Your task to perform on an android device: change the clock display to digital Image 0: 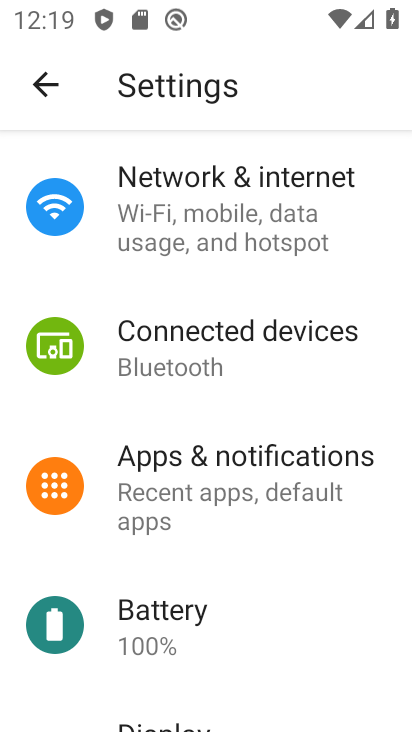
Step 0: press home button
Your task to perform on an android device: change the clock display to digital Image 1: 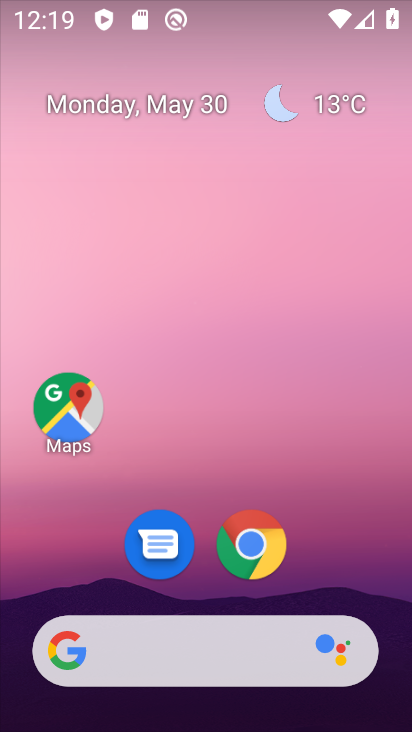
Step 1: drag from (354, 545) to (307, 15)
Your task to perform on an android device: change the clock display to digital Image 2: 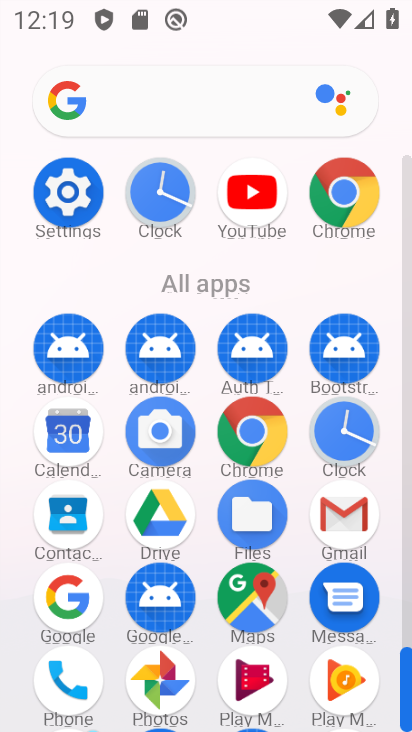
Step 2: click (50, 214)
Your task to perform on an android device: change the clock display to digital Image 3: 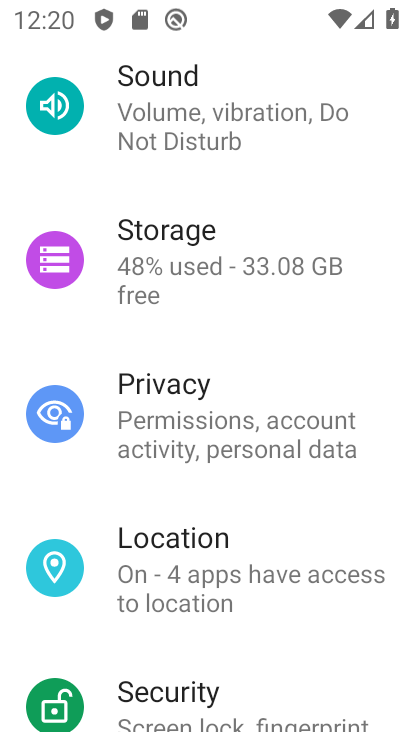
Step 3: task complete